Your task to perform on an android device: Open Google Maps and go to "Timeline" Image 0: 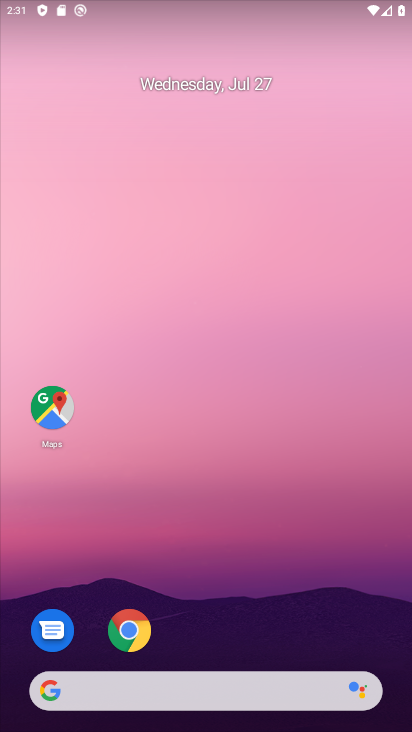
Step 0: press home button
Your task to perform on an android device: Open Google Maps and go to "Timeline" Image 1: 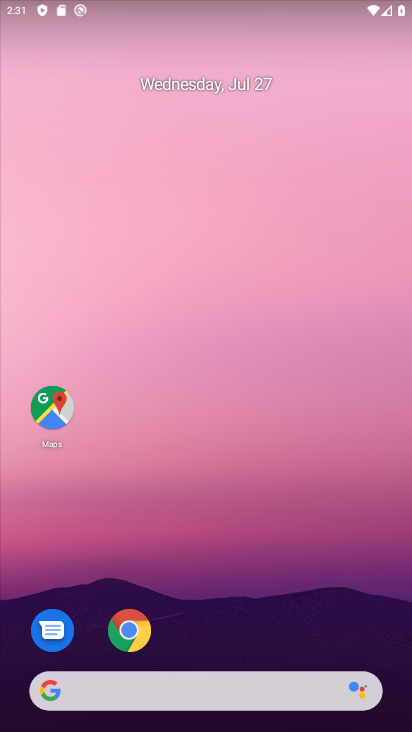
Step 1: drag from (228, 616) to (319, 104)
Your task to perform on an android device: Open Google Maps and go to "Timeline" Image 2: 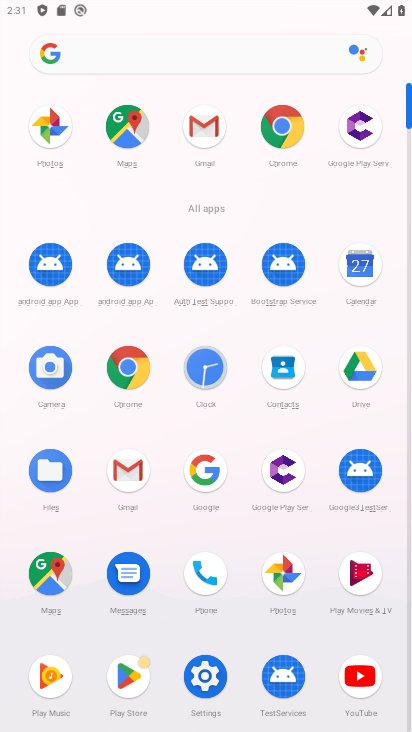
Step 2: click (127, 143)
Your task to perform on an android device: Open Google Maps and go to "Timeline" Image 3: 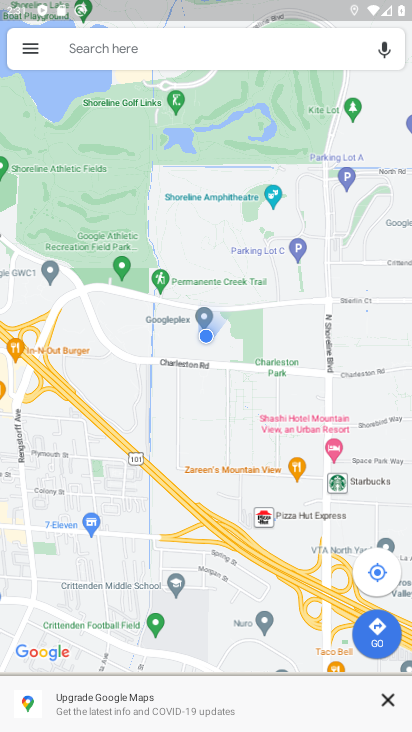
Step 3: click (32, 54)
Your task to perform on an android device: Open Google Maps and go to "Timeline" Image 4: 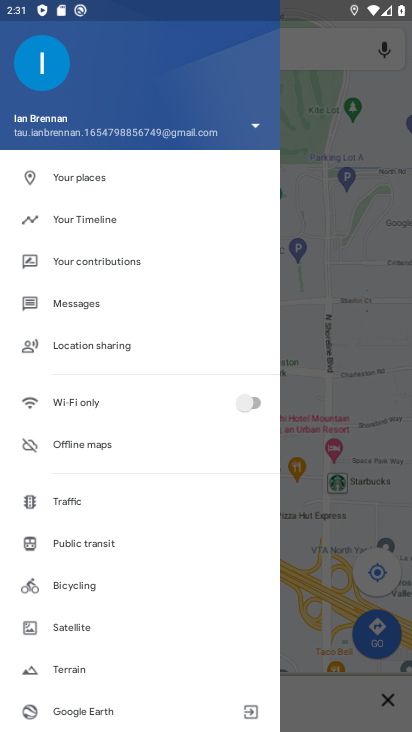
Step 4: click (83, 217)
Your task to perform on an android device: Open Google Maps and go to "Timeline" Image 5: 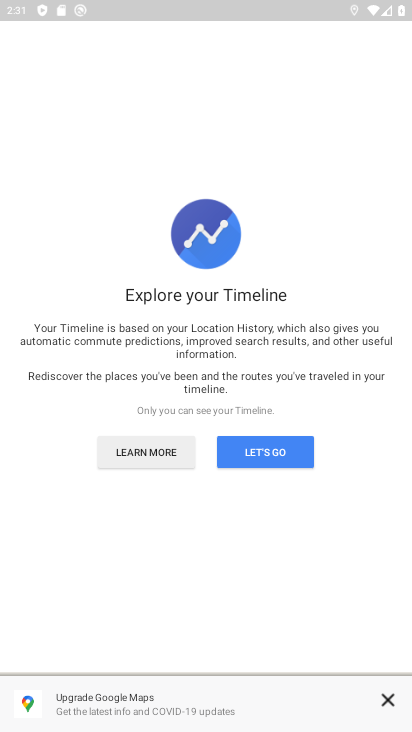
Step 5: click (275, 455)
Your task to perform on an android device: Open Google Maps and go to "Timeline" Image 6: 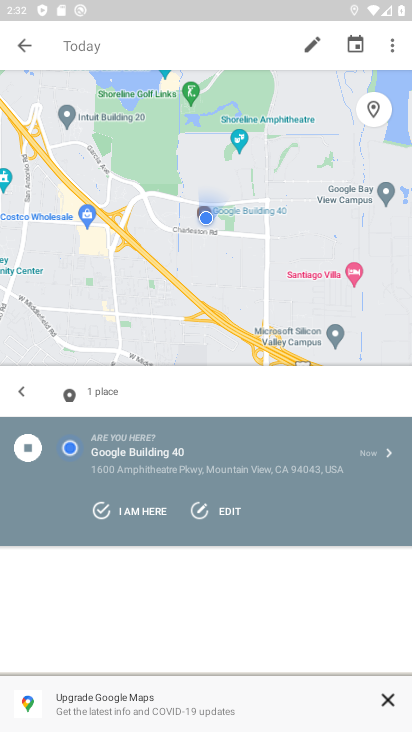
Step 6: task complete